Your task to perform on an android device: open app "Facebook Lite" Image 0: 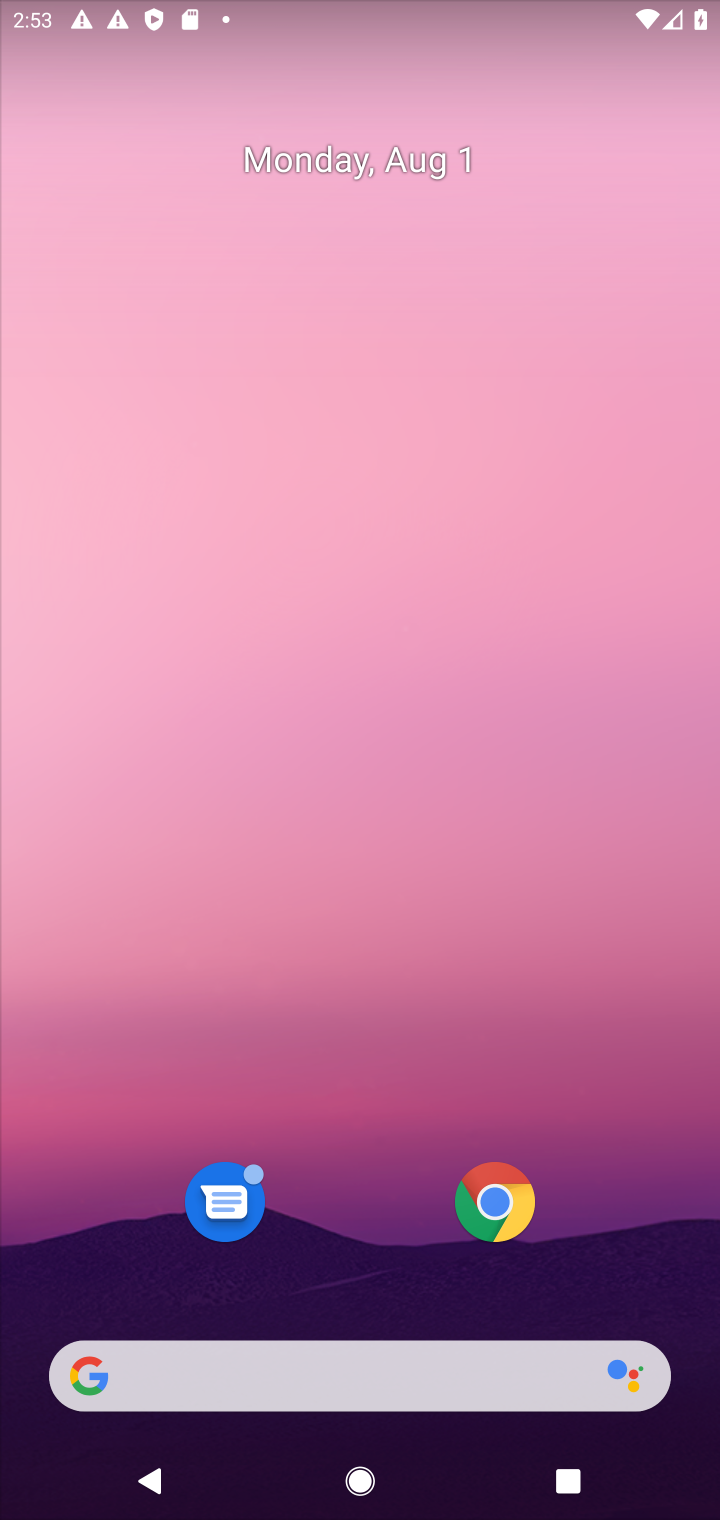
Step 0: drag from (405, 814) to (533, 1)
Your task to perform on an android device: open app "Facebook Lite" Image 1: 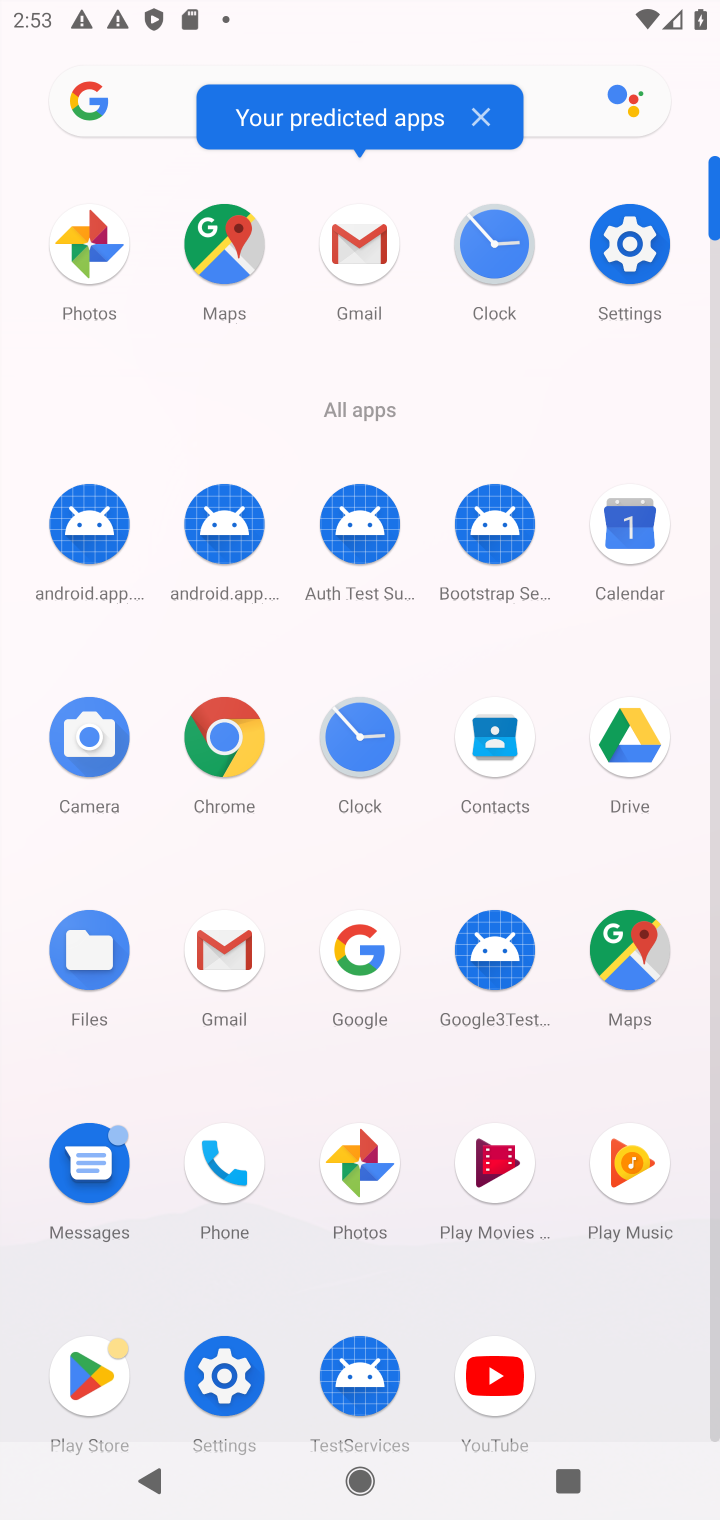
Step 1: click (97, 1379)
Your task to perform on an android device: open app "Facebook Lite" Image 2: 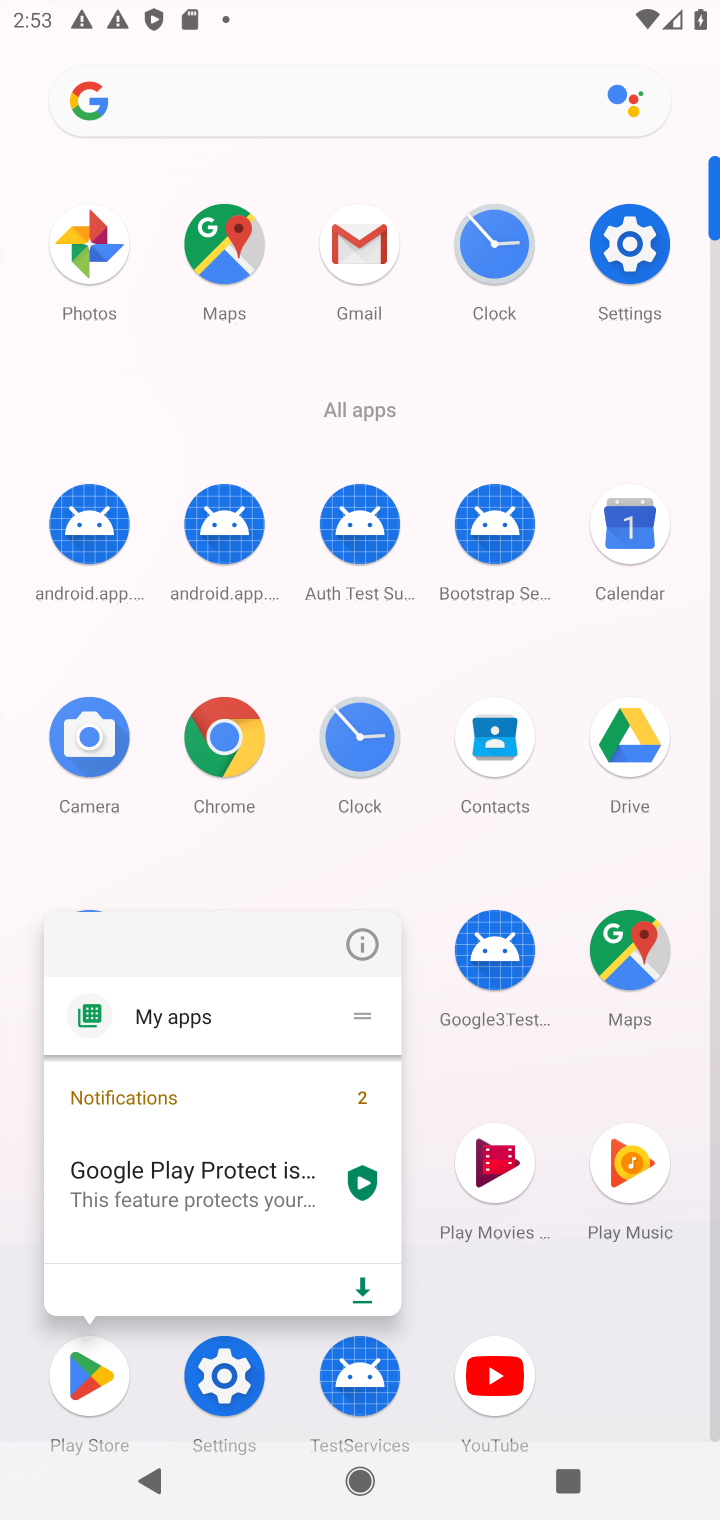
Step 2: click (102, 1383)
Your task to perform on an android device: open app "Facebook Lite" Image 3: 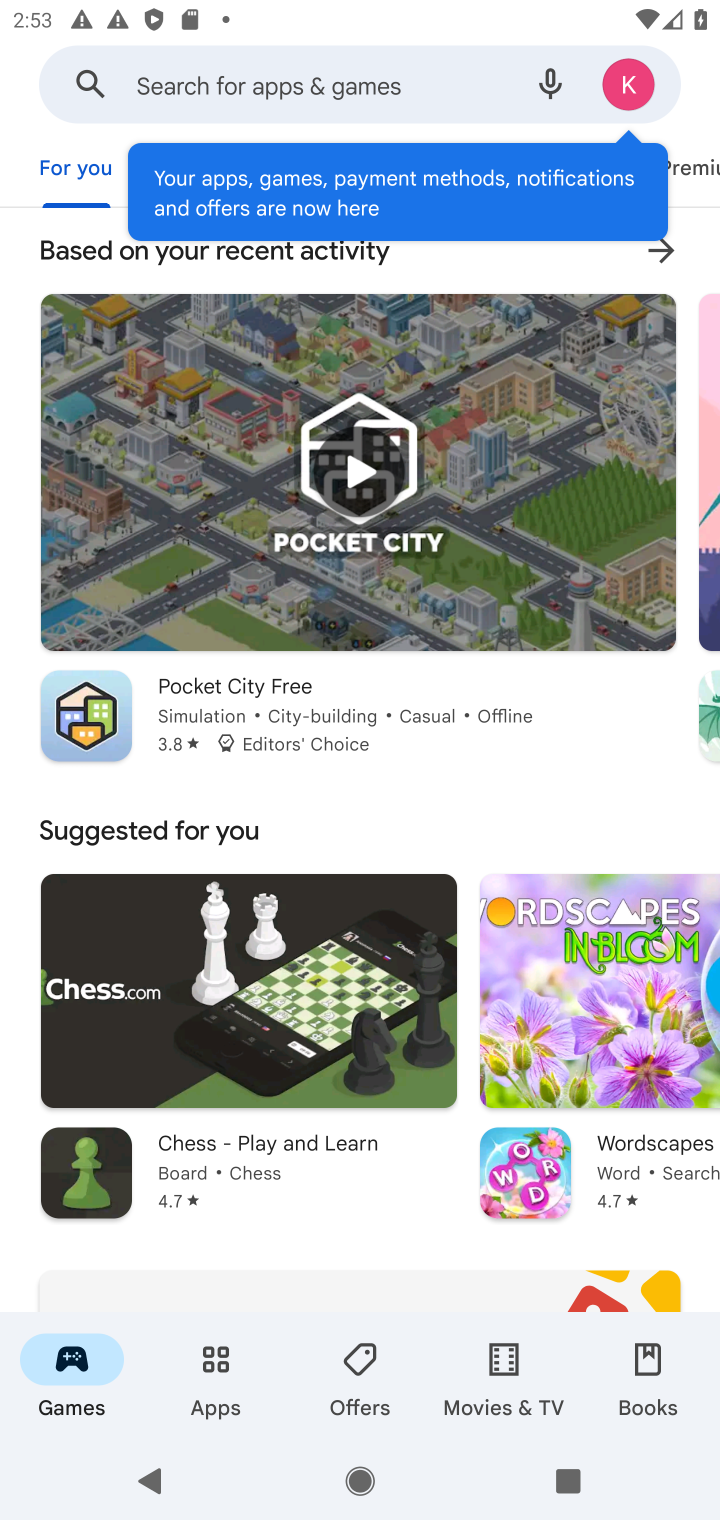
Step 3: click (329, 42)
Your task to perform on an android device: open app "Facebook Lite" Image 4: 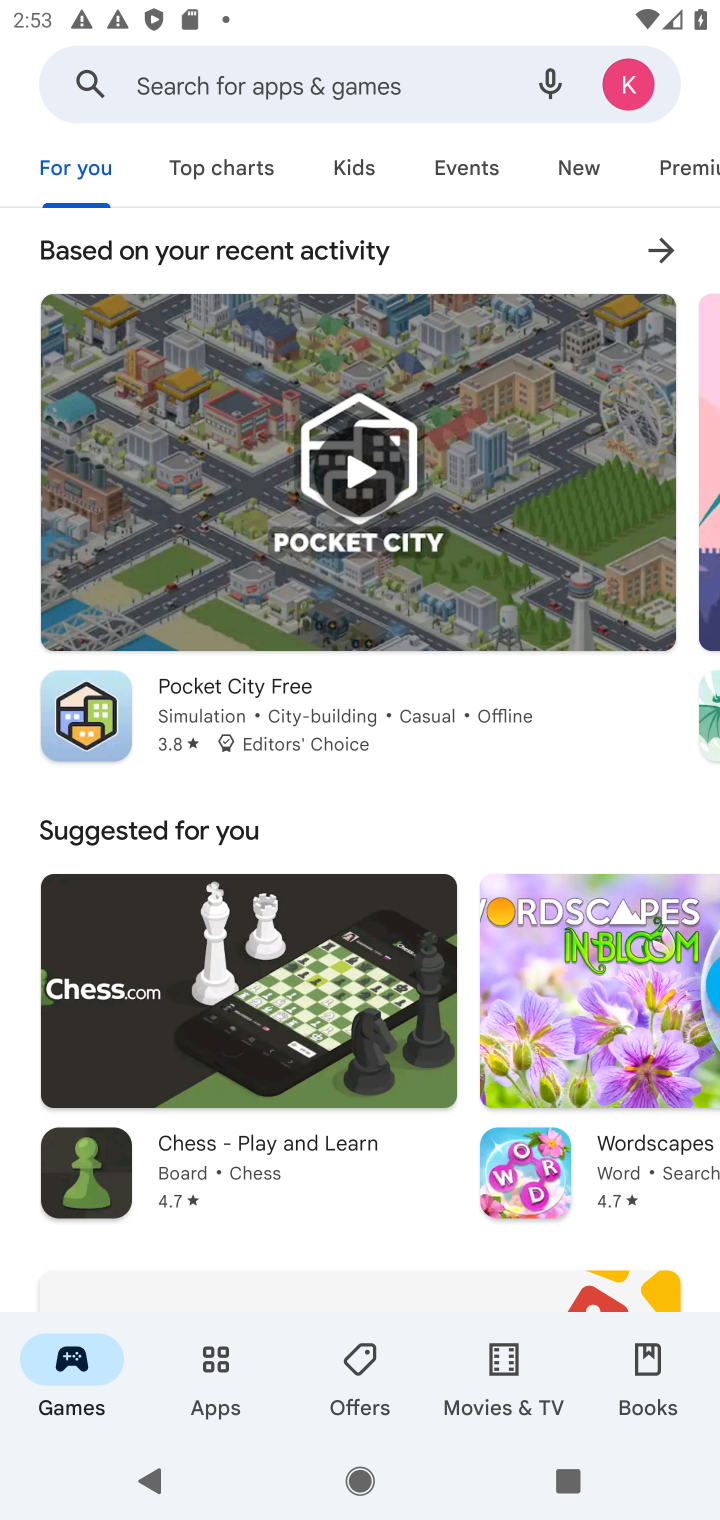
Step 4: click (360, 80)
Your task to perform on an android device: open app "Facebook Lite" Image 5: 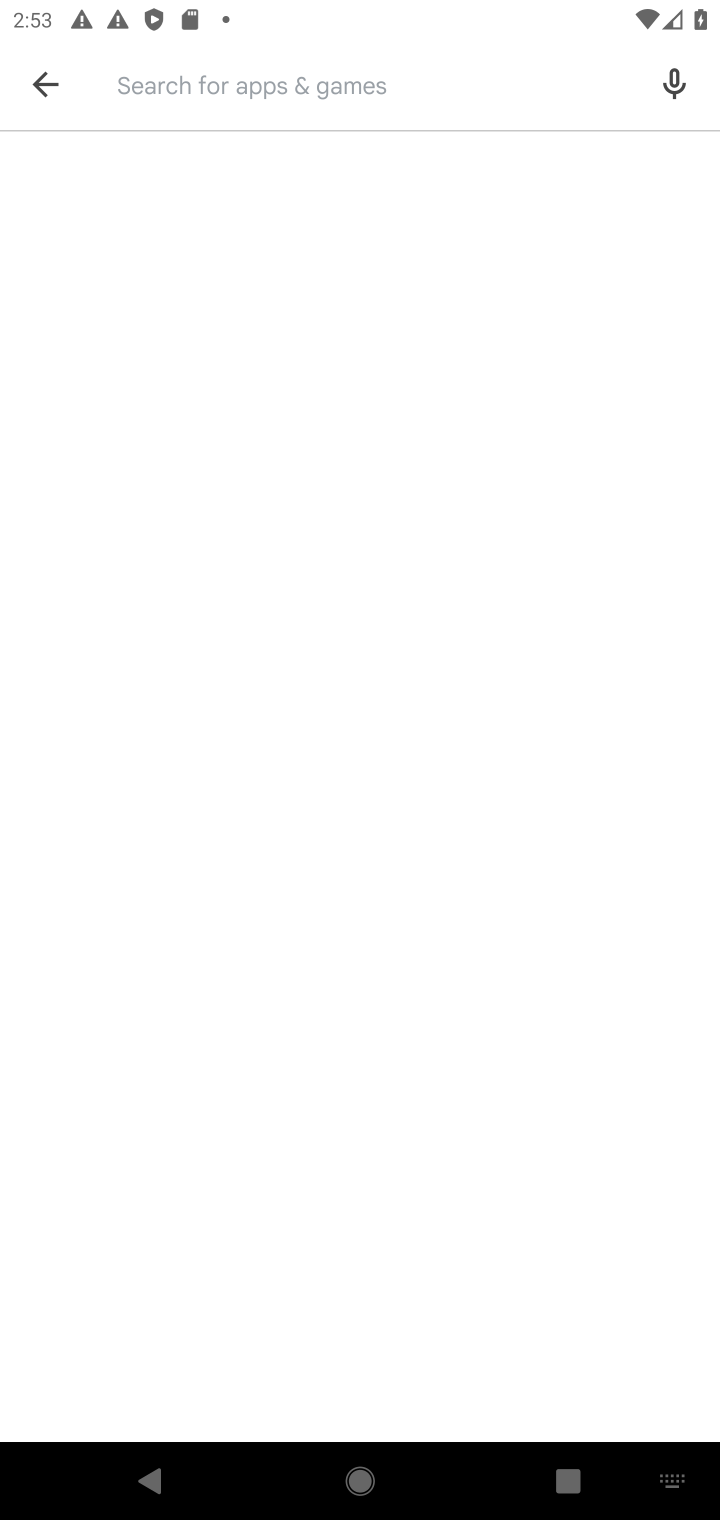
Step 5: type "Facebook Lite"
Your task to perform on an android device: open app "Facebook Lite" Image 6: 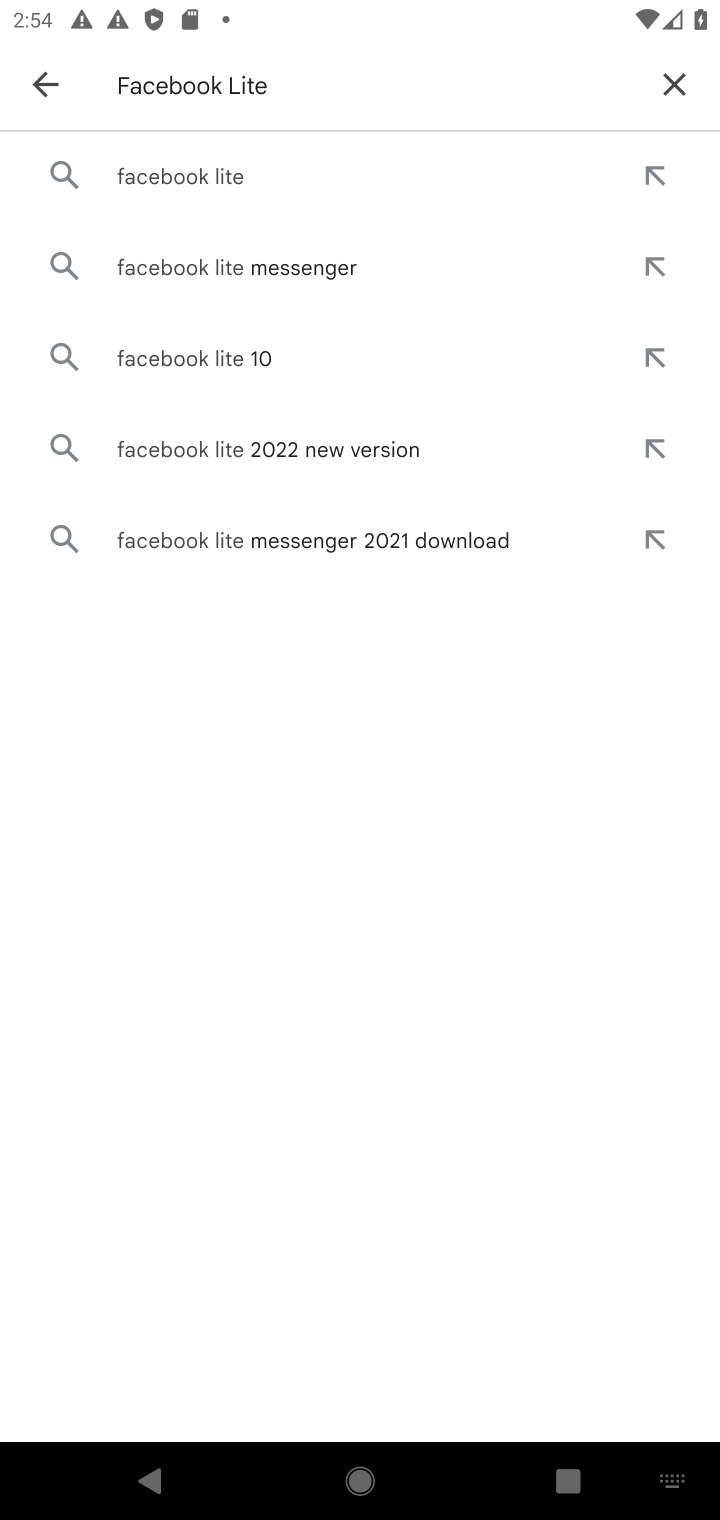
Step 6: click (183, 173)
Your task to perform on an android device: open app "Facebook Lite" Image 7: 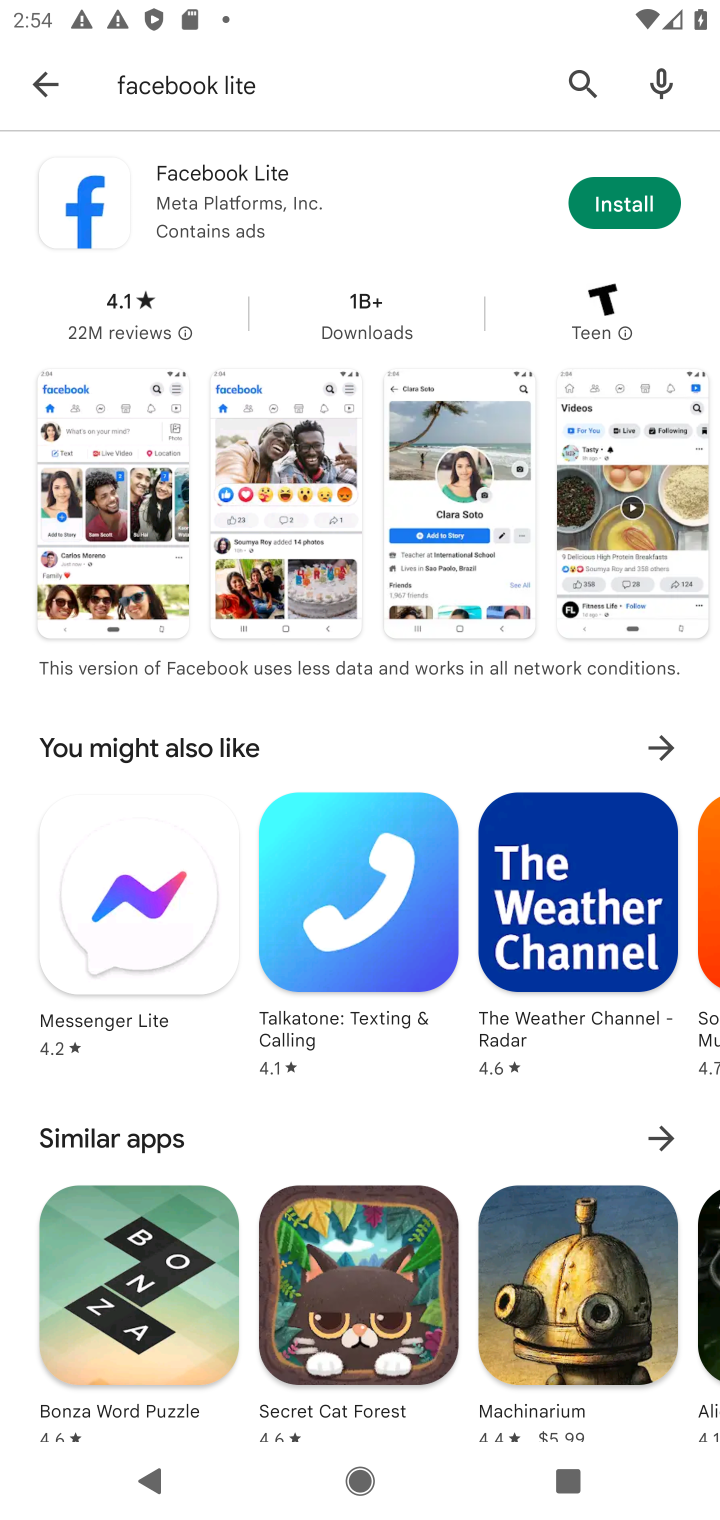
Step 7: task complete